Your task to perform on an android device: Go to Yahoo.com Image 0: 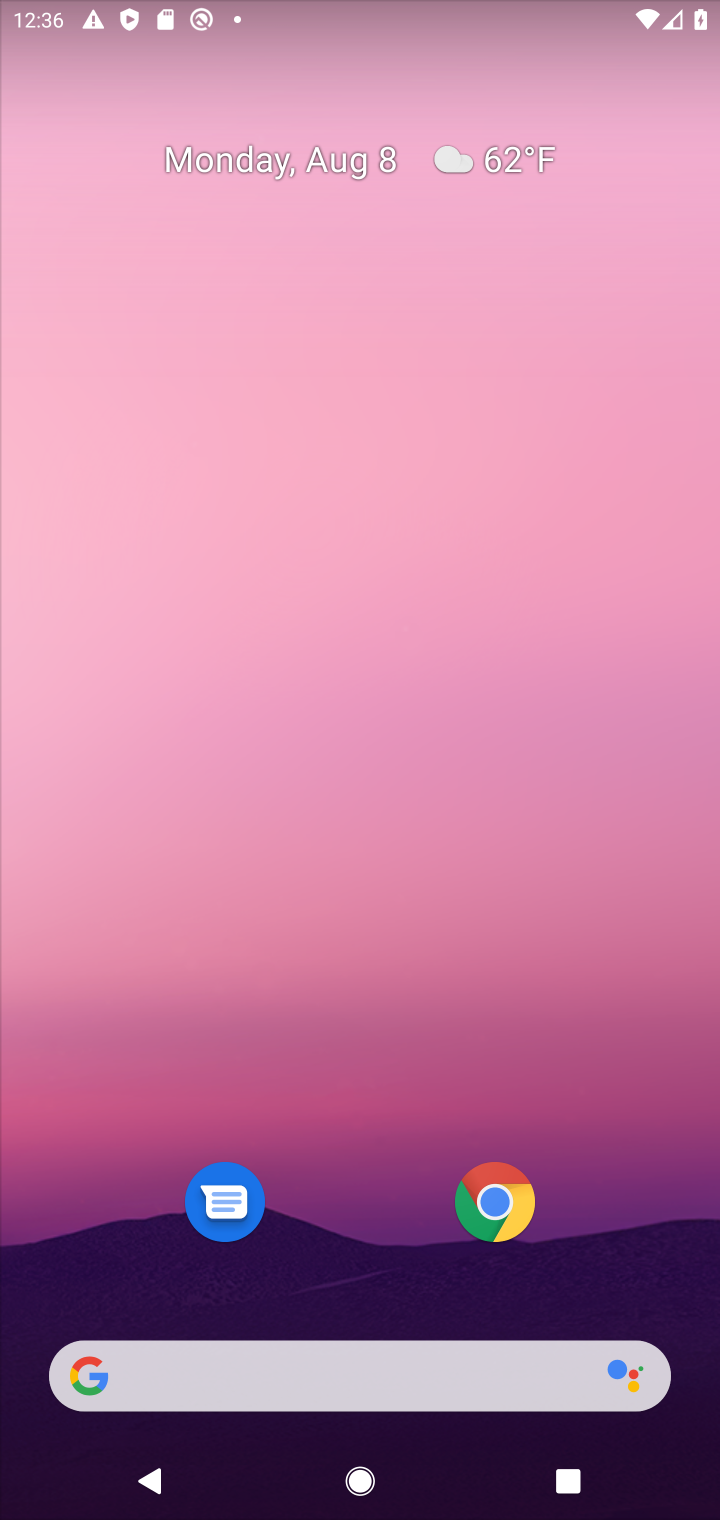
Step 0: click (501, 1205)
Your task to perform on an android device: Go to Yahoo.com Image 1: 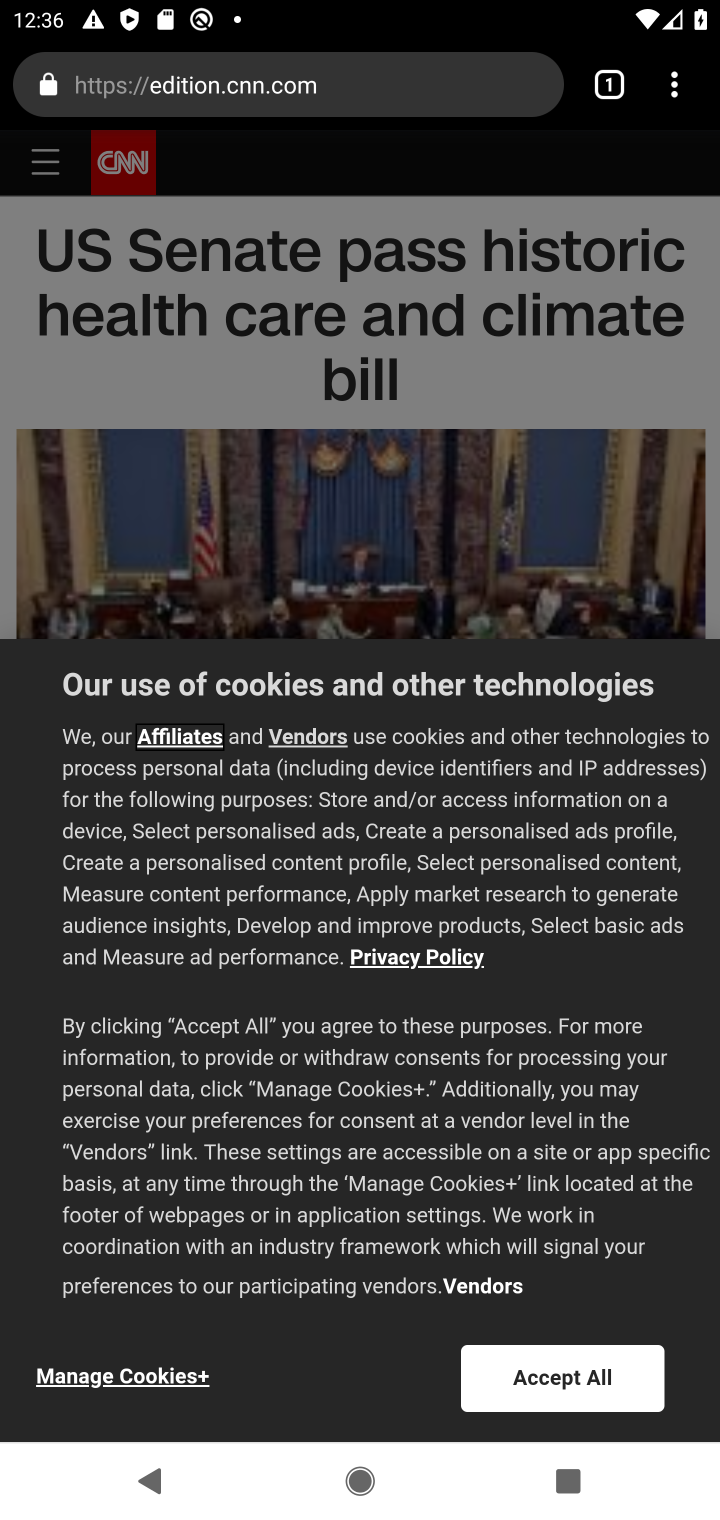
Step 1: click (188, 78)
Your task to perform on an android device: Go to Yahoo.com Image 2: 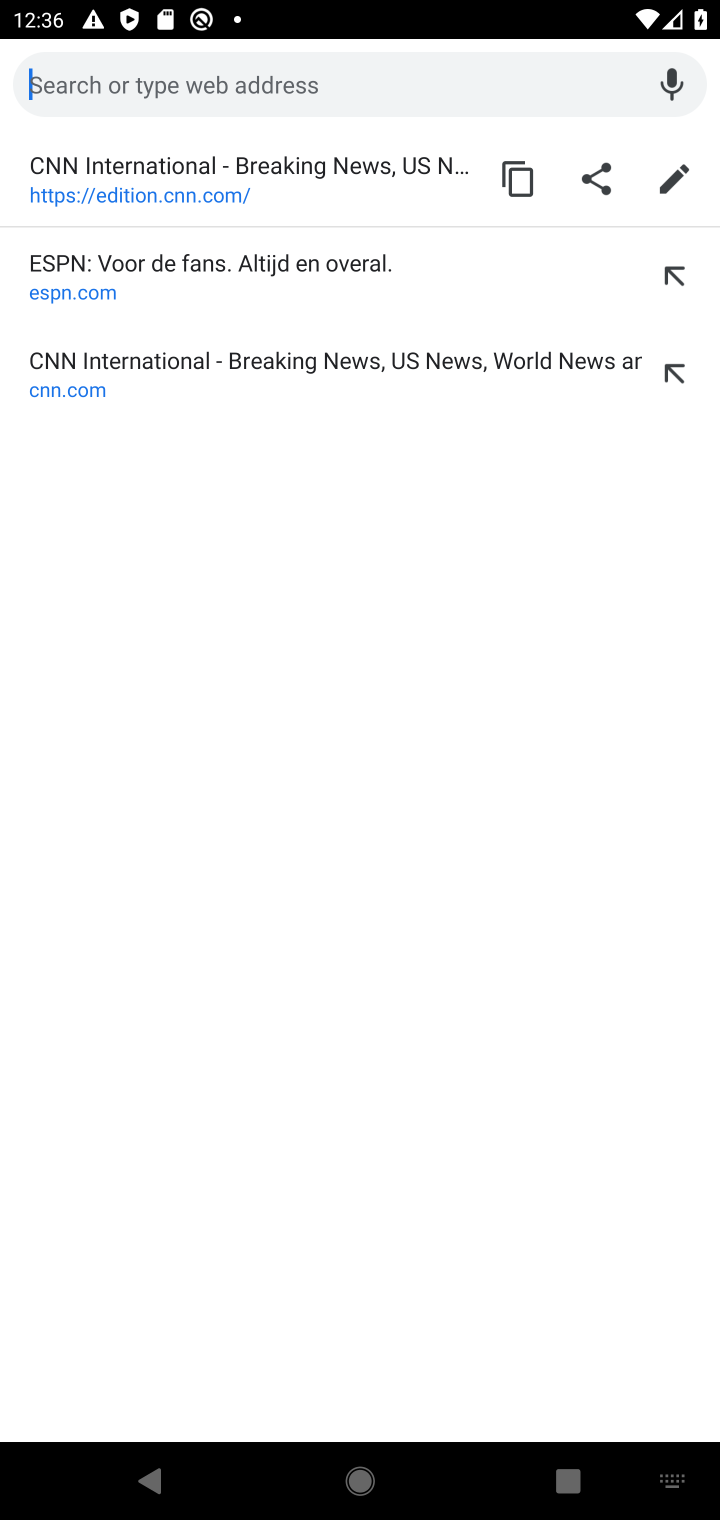
Step 2: type "www.yahoo.com"
Your task to perform on an android device: Go to Yahoo.com Image 3: 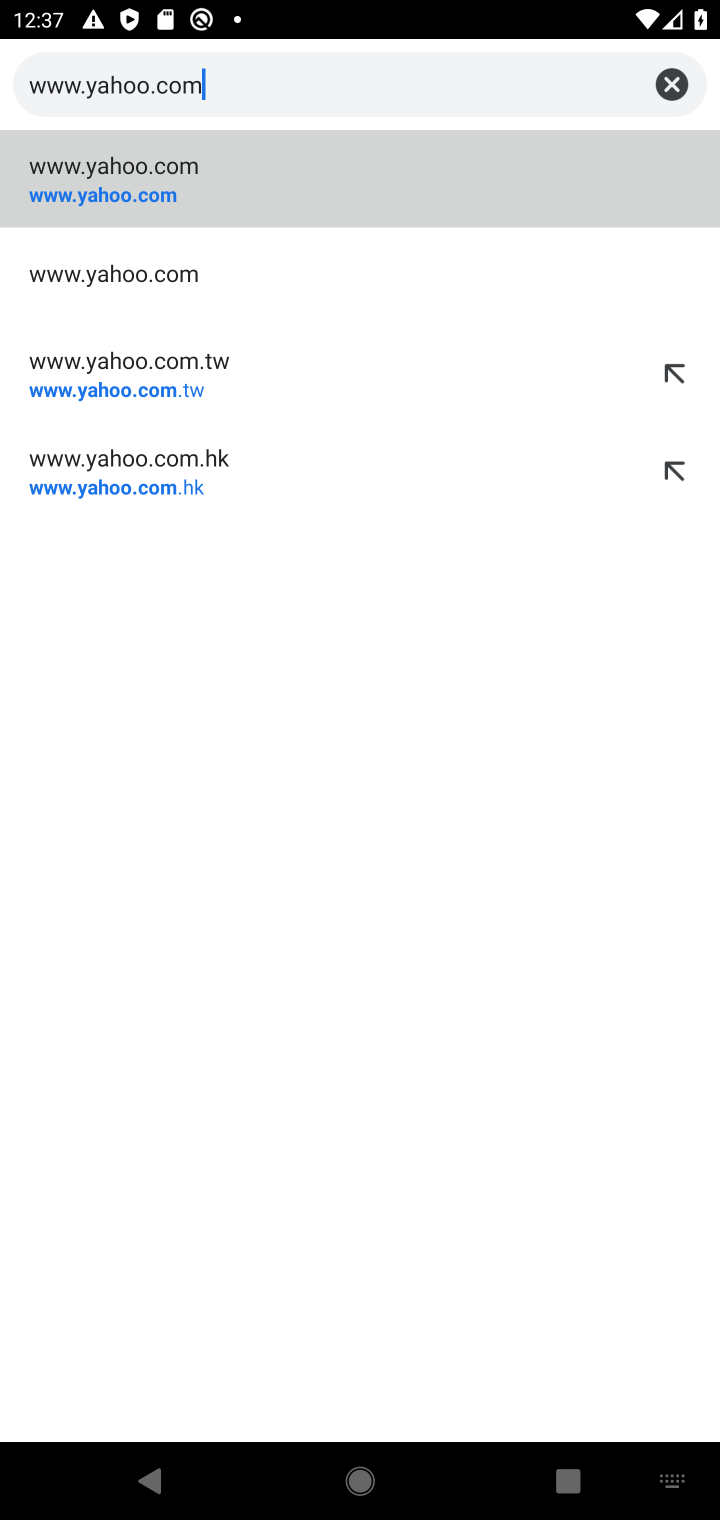
Step 3: click (98, 191)
Your task to perform on an android device: Go to Yahoo.com Image 4: 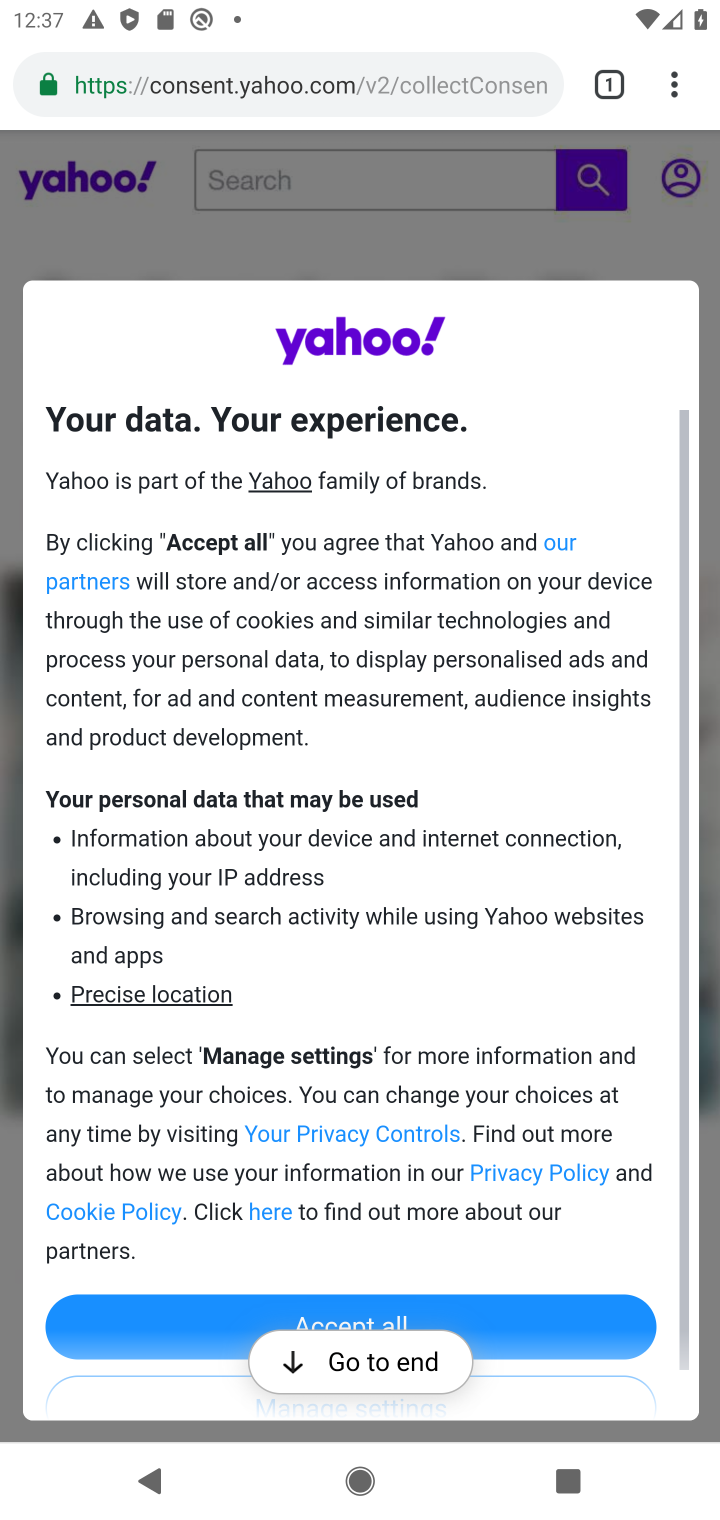
Step 4: task complete